Your task to perform on an android device: change text size in settings app Image 0: 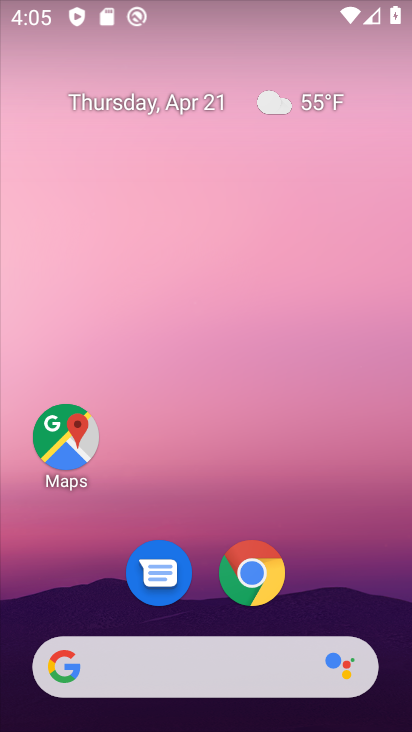
Step 0: drag from (353, 596) to (307, 236)
Your task to perform on an android device: change text size in settings app Image 1: 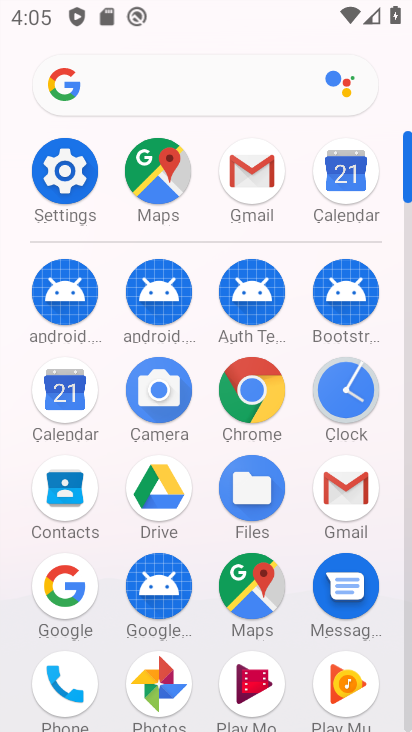
Step 1: click (407, 715)
Your task to perform on an android device: change text size in settings app Image 2: 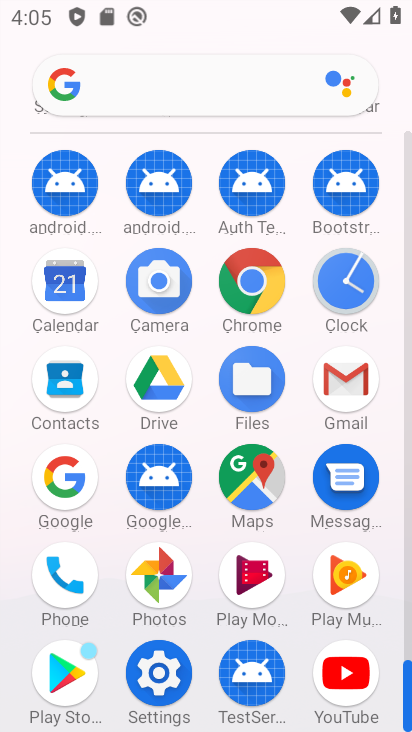
Step 2: click (156, 669)
Your task to perform on an android device: change text size in settings app Image 3: 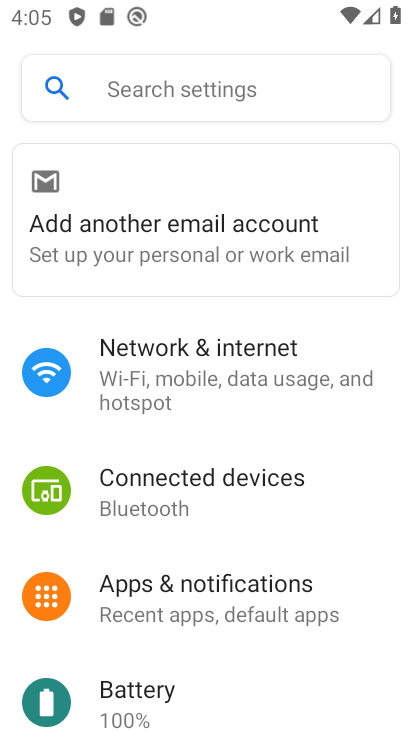
Step 3: drag from (311, 656) to (320, 394)
Your task to perform on an android device: change text size in settings app Image 4: 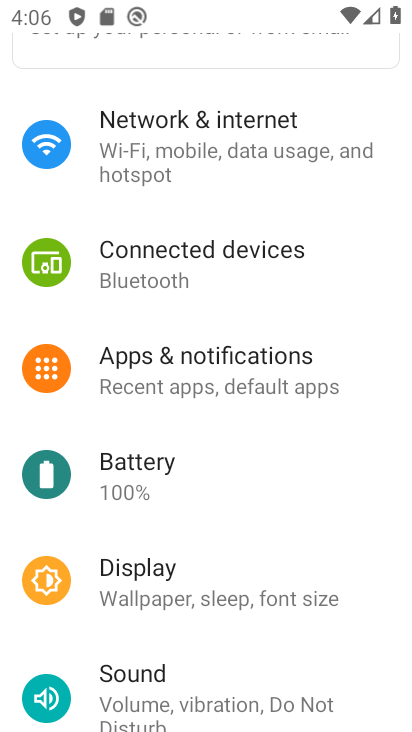
Step 4: click (143, 591)
Your task to perform on an android device: change text size in settings app Image 5: 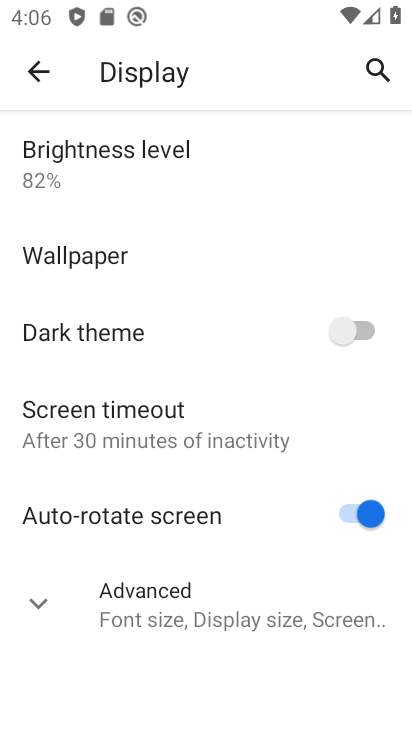
Step 5: click (35, 604)
Your task to perform on an android device: change text size in settings app Image 6: 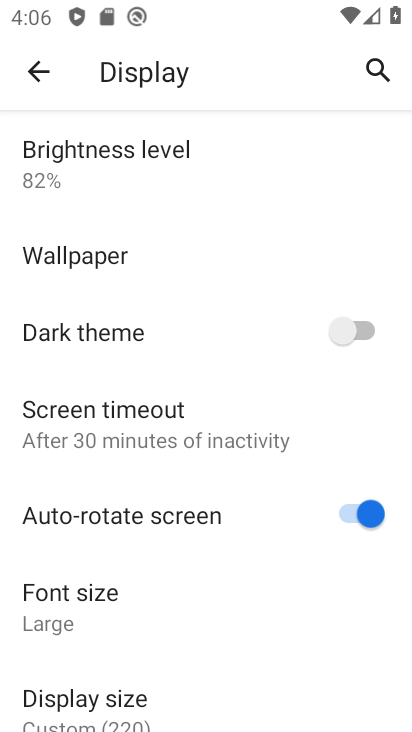
Step 6: click (41, 604)
Your task to perform on an android device: change text size in settings app Image 7: 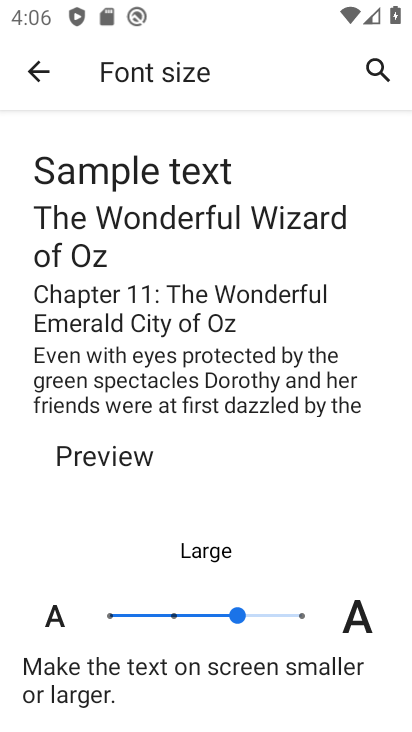
Step 7: click (170, 612)
Your task to perform on an android device: change text size in settings app Image 8: 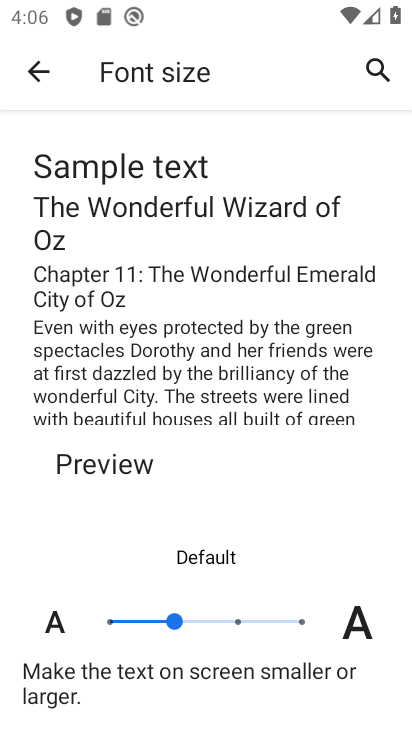
Step 8: task complete